Your task to perform on an android device: Open Google Chrome Image 0: 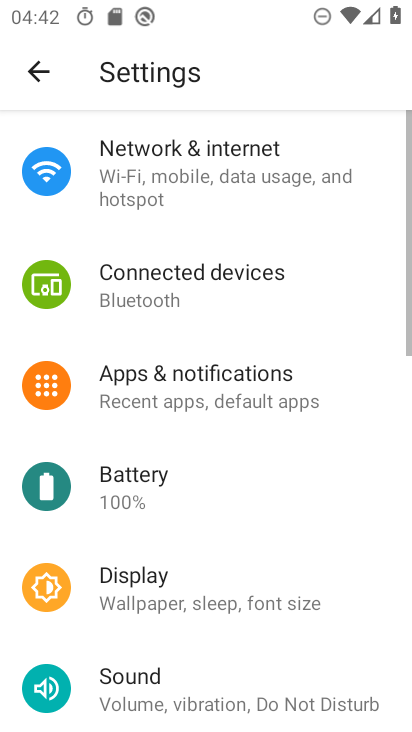
Step 0: press home button
Your task to perform on an android device: Open Google Chrome Image 1: 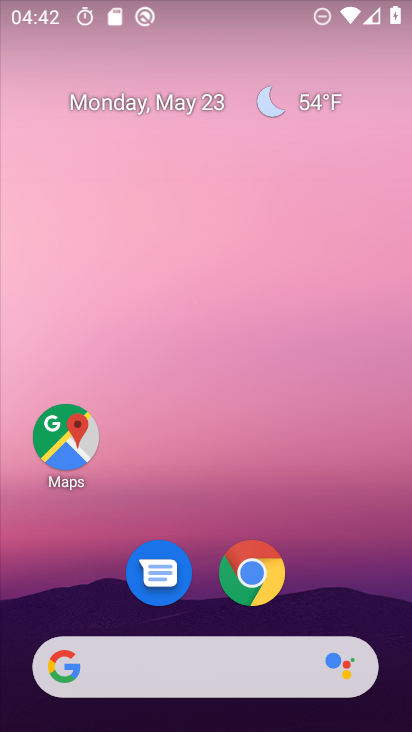
Step 1: click (253, 569)
Your task to perform on an android device: Open Google Chrome Image 2: 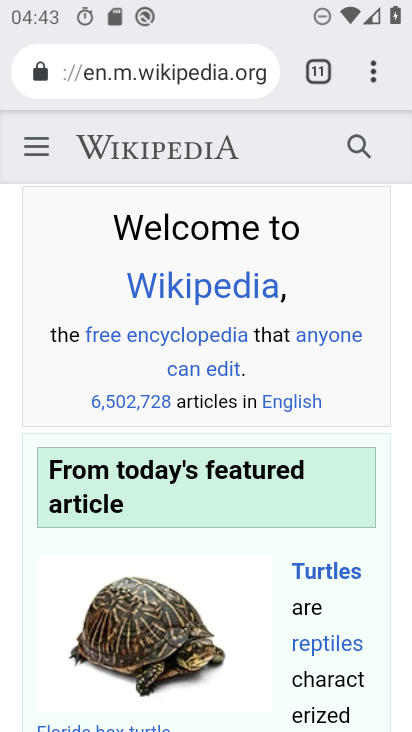
Step 2: task complete